Your task to perform on an android device: move a message to another label in the gmail app Image 0: 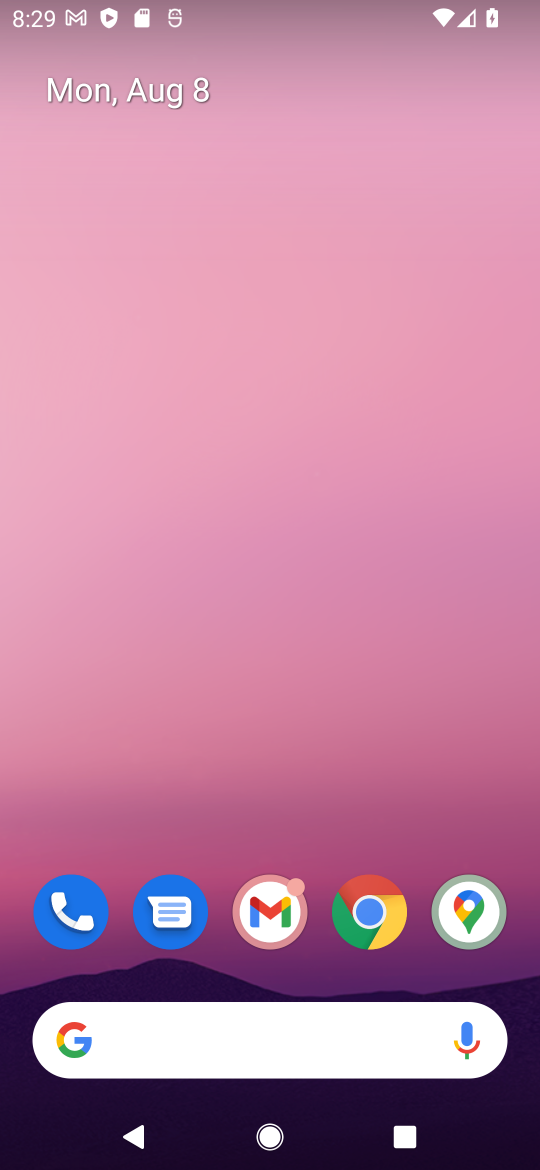
Step 0: drag from (423, 964) to (318, 53)
Your task to perform on an android device: move a message to another label in the gmail app Image 1: 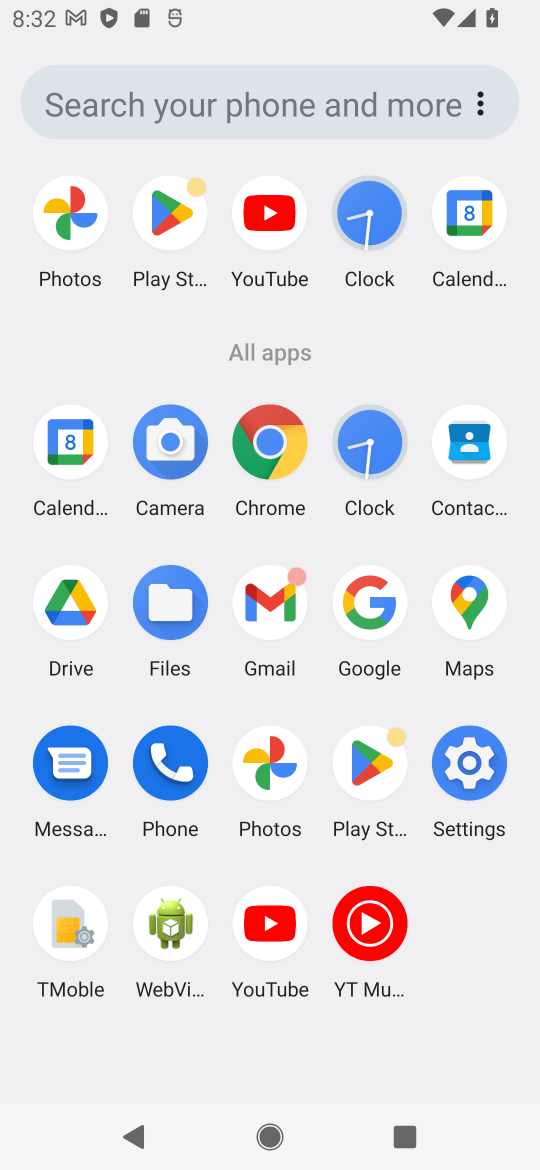
Step 1: click (273, 617)
Your task to perform on an android device: move a message to another label in the gmail app Image 2: 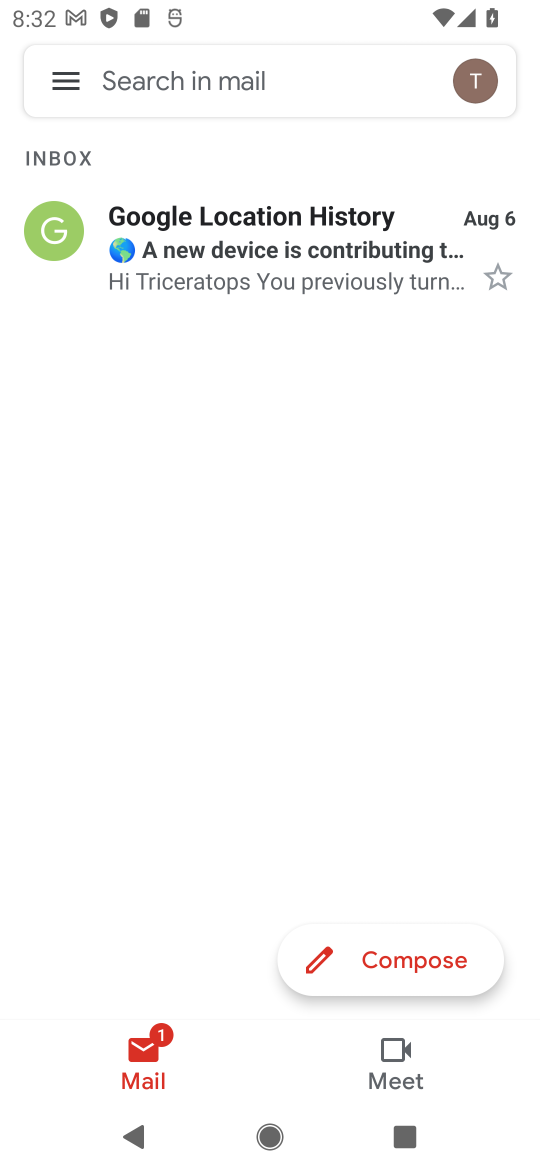
Step 2: task complete